Your task to perform on an android device: Find coffee shops on Maps Image 0: 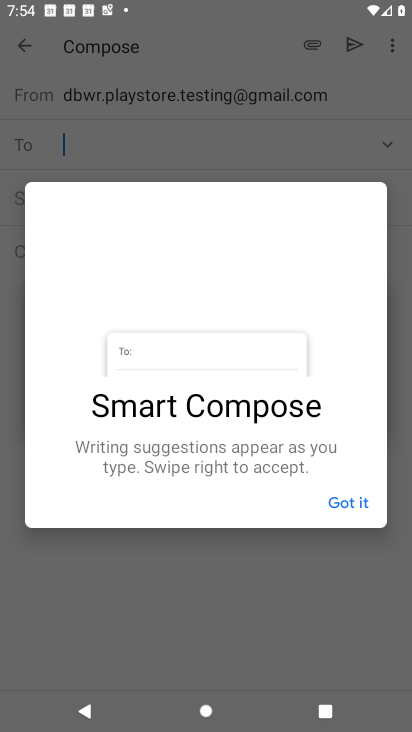
Step 0: press home button
Your task to perform on an android device: Find coffee shops on Maps Image 1: 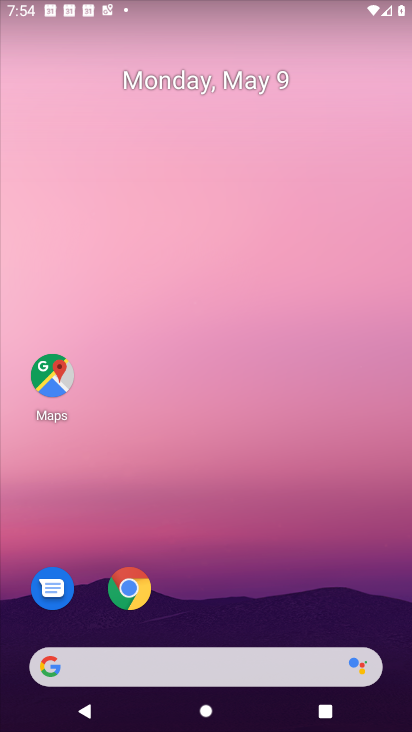
Step 1: click (44, 376)
Your task to perform on an android device: Find coffee shops on Maps Image 2: 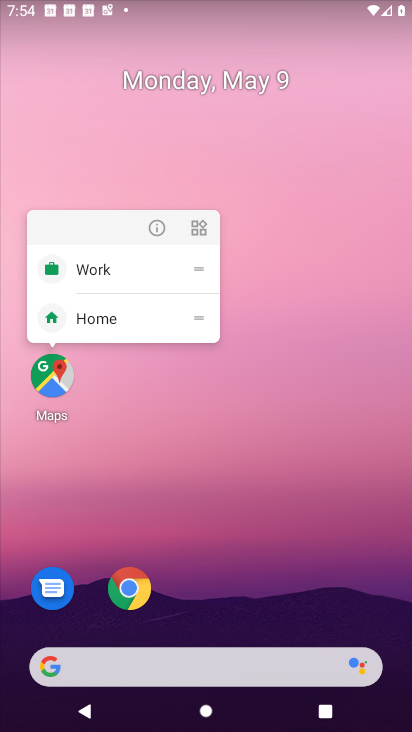
Step 2: click (48, 386)
Your task to perform on an android device: Find coffee shops on Maps Image 3: 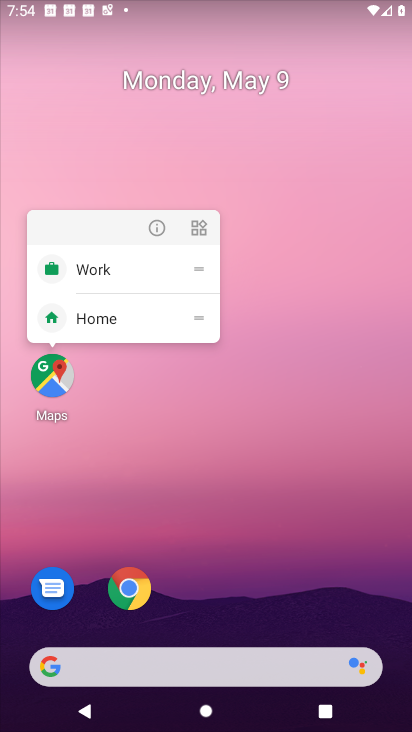
Step 3: click (55, 388)
Your task to perform on an android device: Find coffee shops on Maps Image 4: 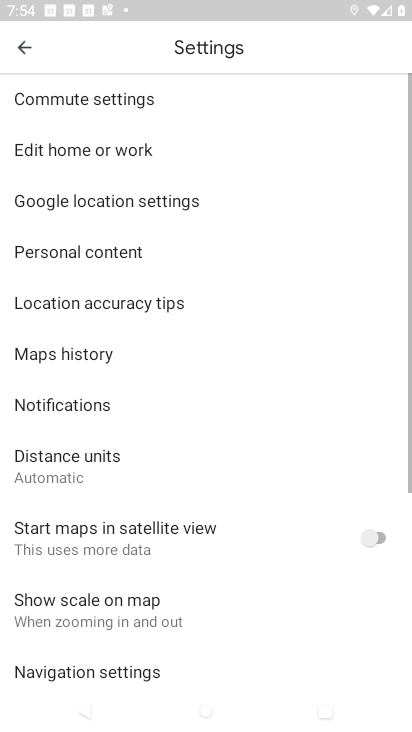
Step 4: click (16, 45)
Your task to perform on an android device: Find coffee shops on Maps Image 5: 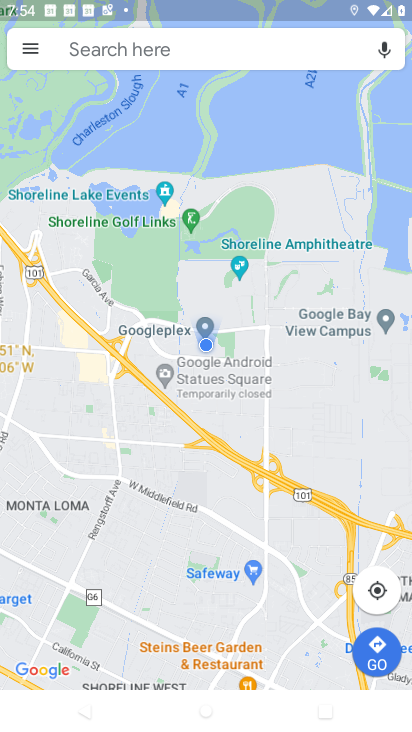
Step 5: click (111, 45)
Your task to perform on an android device: Find coffee shops on Maps Image 6: 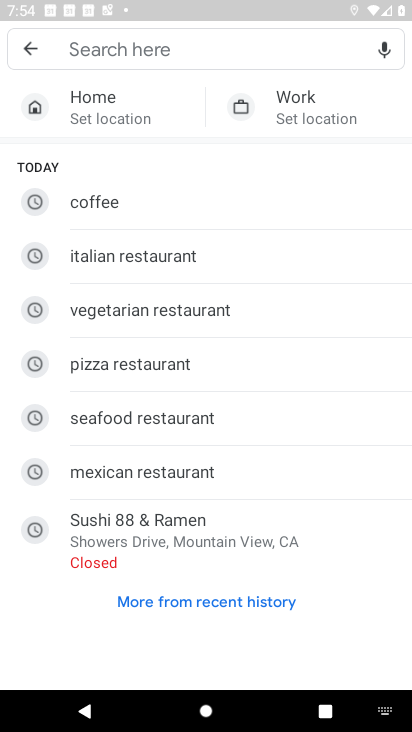
Step 6: click (95, 206)
Your task to perform on an android device: Find coffee shops on Maps Image 7: 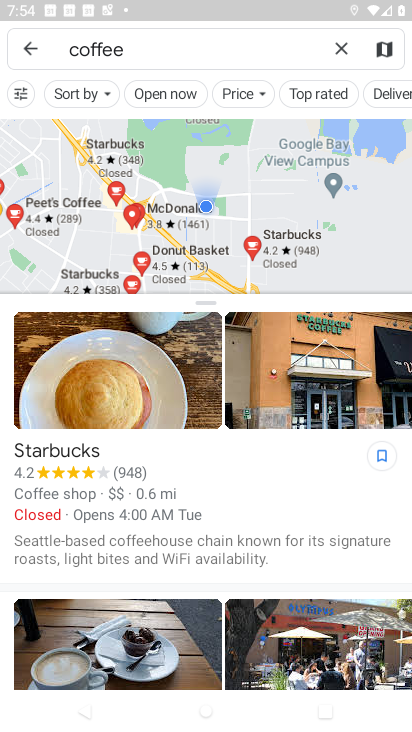
Step 7: task complete